Your task to perform on an android device: see tabs open on other devices in the chrome app Image 0: 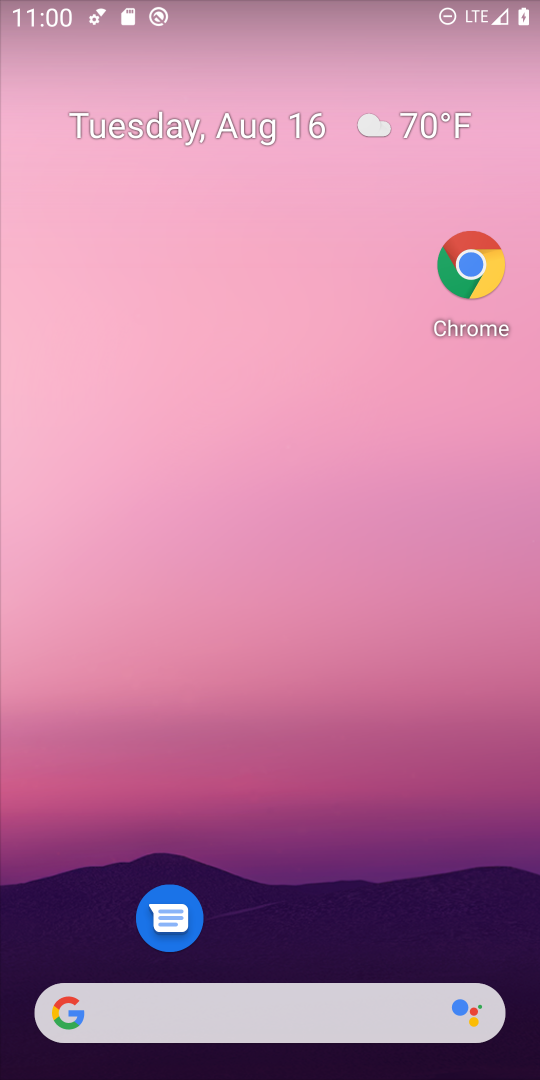
Step 0: drag from (274, 940) to (538, 8)
Your task to perform on an android device: see tabs open on other devices in the chrome app Image 1: 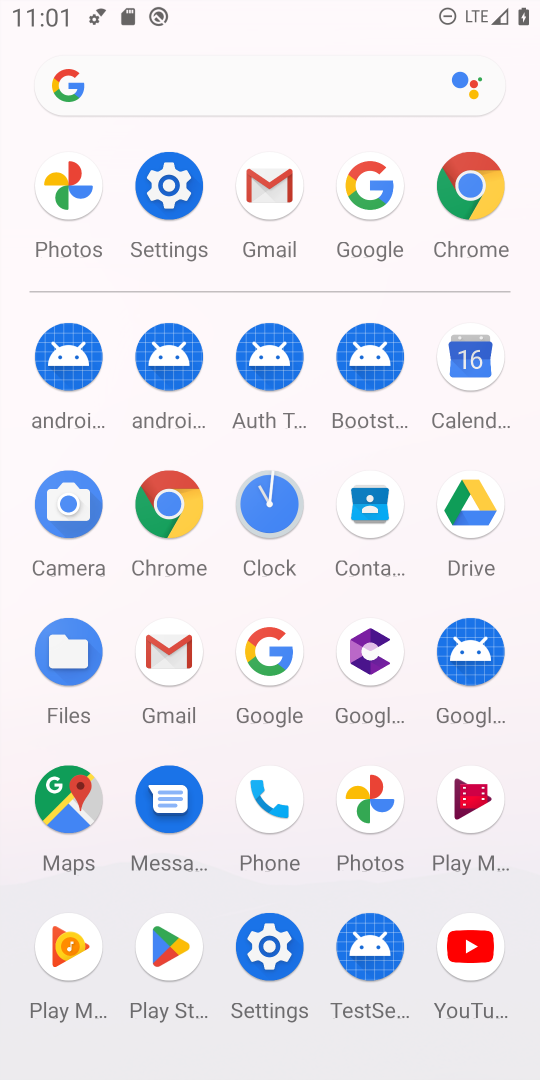
Step 1: click (474, 206)
Your task to perform on an android device: see tabs open on other devices in the chrome app Image 2: 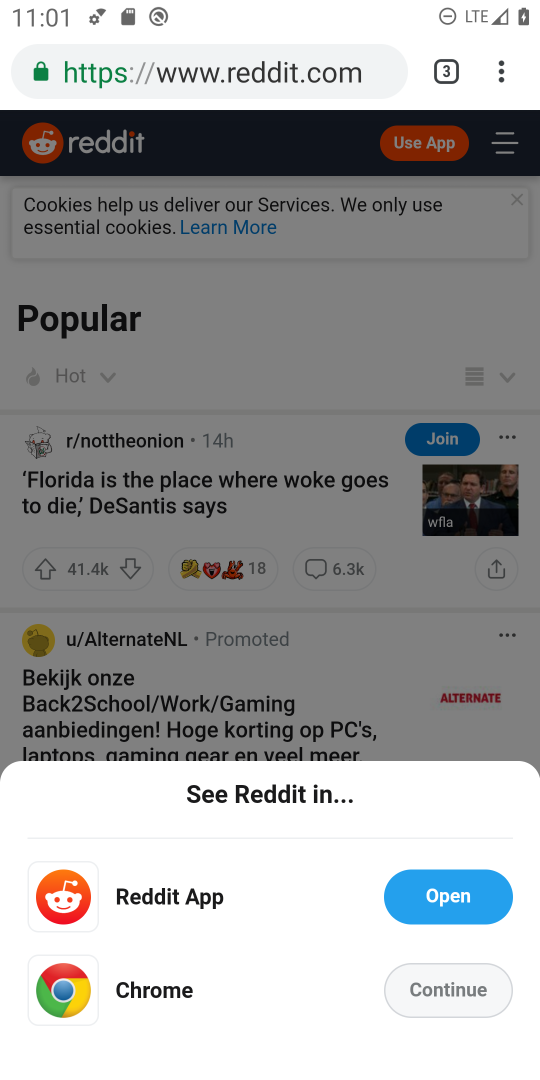
Step 2: task complete